Your task to perform on an android device: open the mobile data screen to see how much data has been used Image 0: 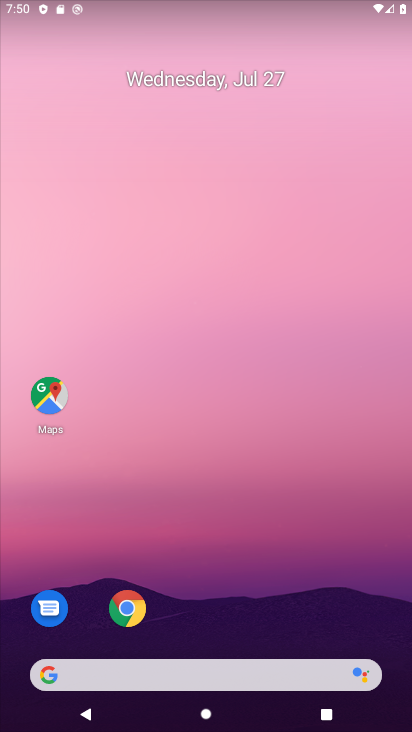
Step 0: drag from (285, 517) to (274, 212)
Your task to perform on an android device: open the mobile data screen to see how much data has been used Image 1: 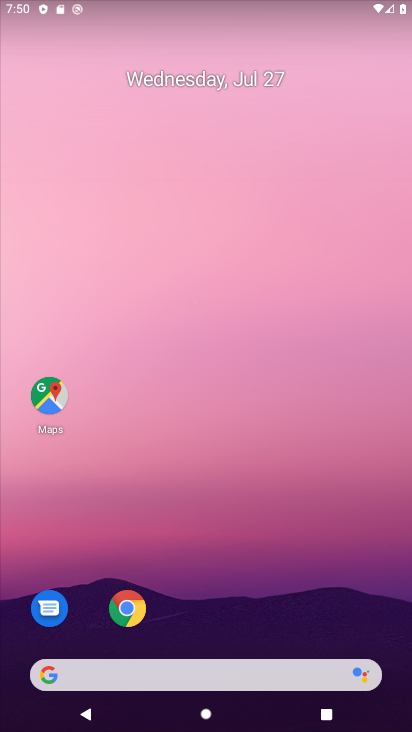
Step 1: drag from (229, 566) to (214, 191)
Your task to perform on an android device: open the mobile data screen to see how much data has been used Image 2: 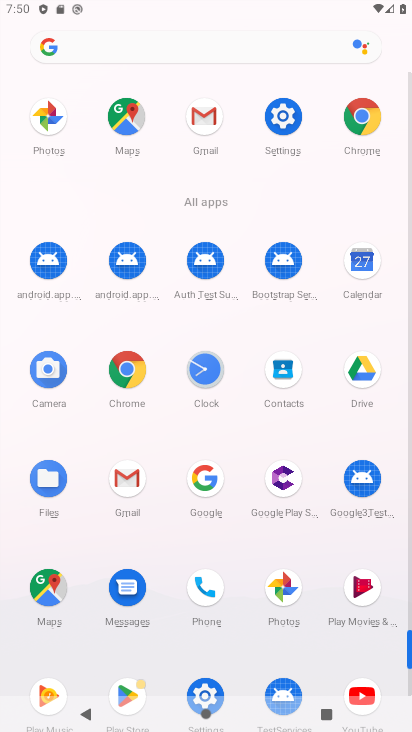
Step 2: click (280, 116)
Your task to perform on an android device: open the mobile data screen to see how much data has been used Image 3: 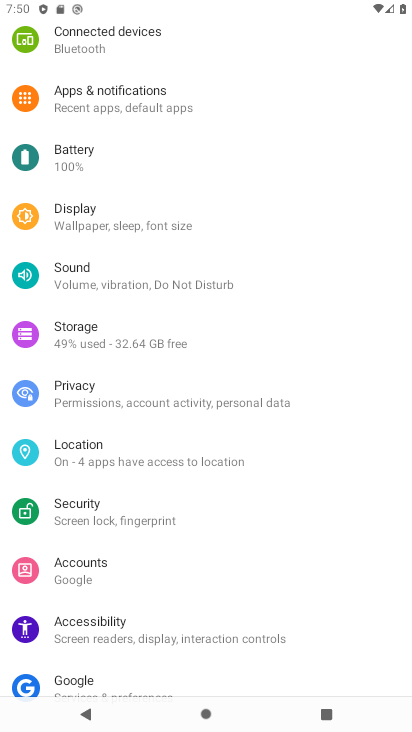
Step 3: task complete